Your task to perform on an android device: Go to Wikipedia Image 0: 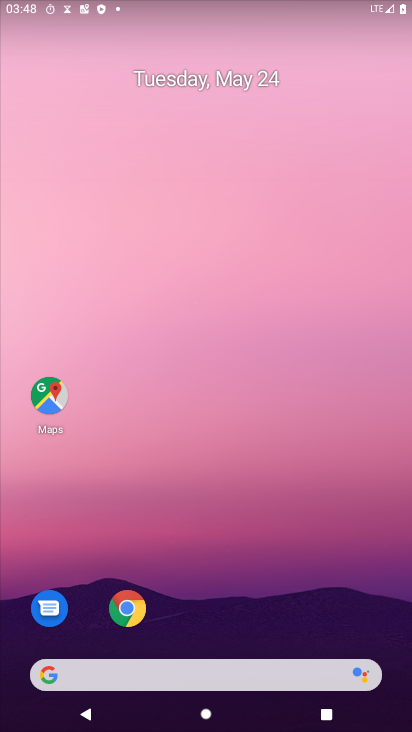
Step 0: drag from (249, 606) to (194, 240)
Your task to perform on an android device: Go to Wikipedia Image 1: 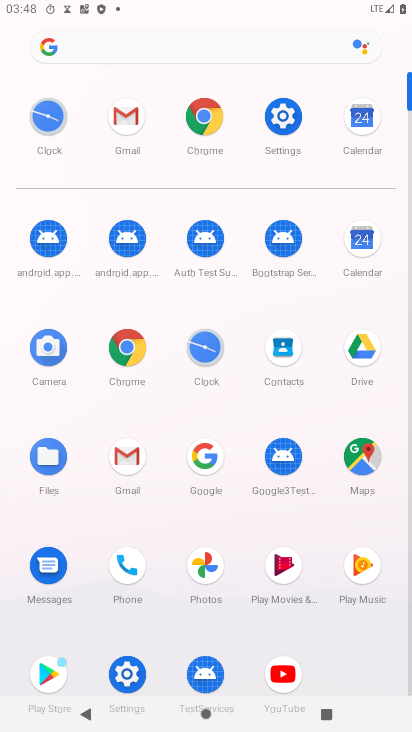
Step 1: click (219, 136)
Your task to perform on an android device: Go to Wikipedia Image 2: 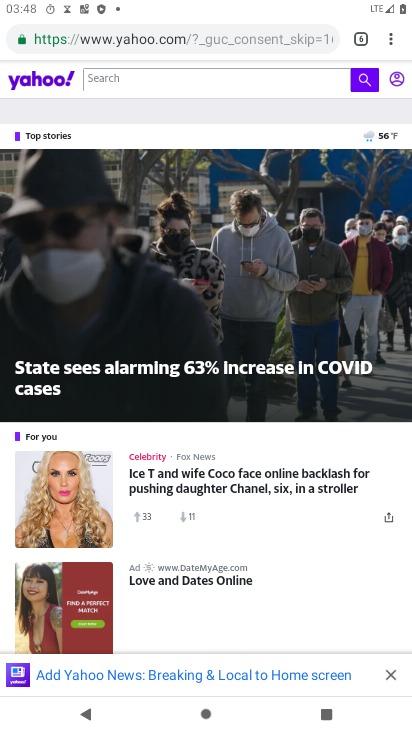
Step 2: click (364, 36)
Your task to perform on an android device: Go to Wikipedia Image 3: 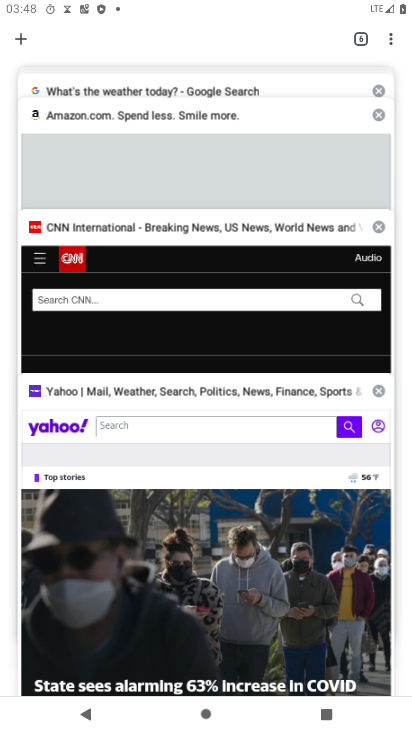
Step 3: click (18, 31)
Your task to perform on an android device: Go to Wikipedia Image 4: 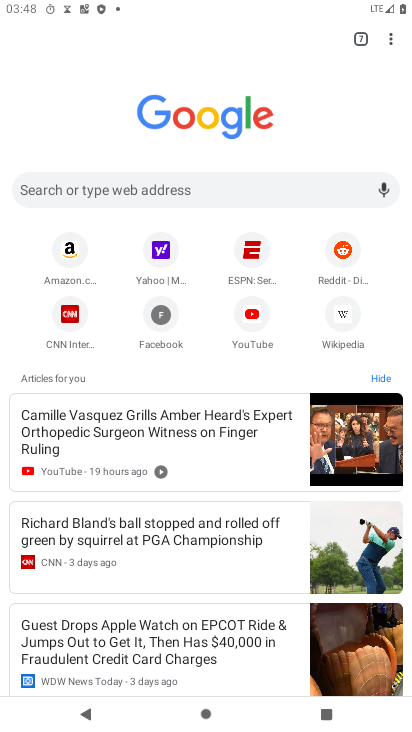
Step 4: click (350, 314)
Your task to perform on an android device: Go to Wikipedia Image 5: 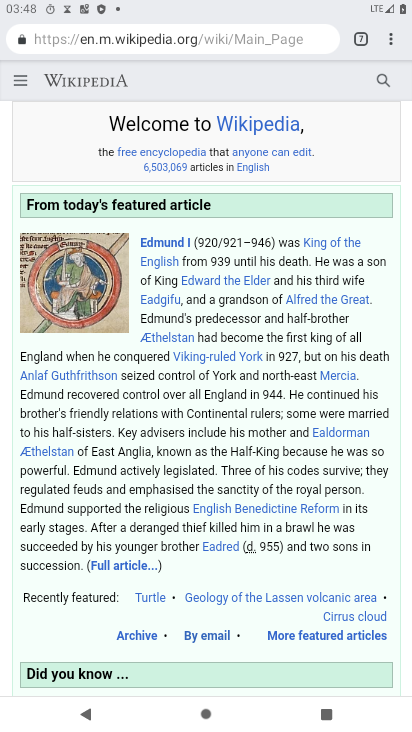
Step 5: task complete